Your task to perform on an android device: set default search engine in the chrome app Image 0: 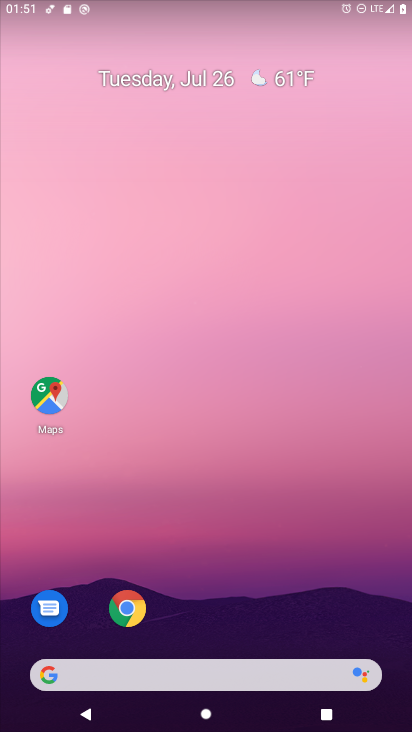
Step 0: click (124, 611)
Your task to perform on an android device: set default search engine in the chrome app Image 1: 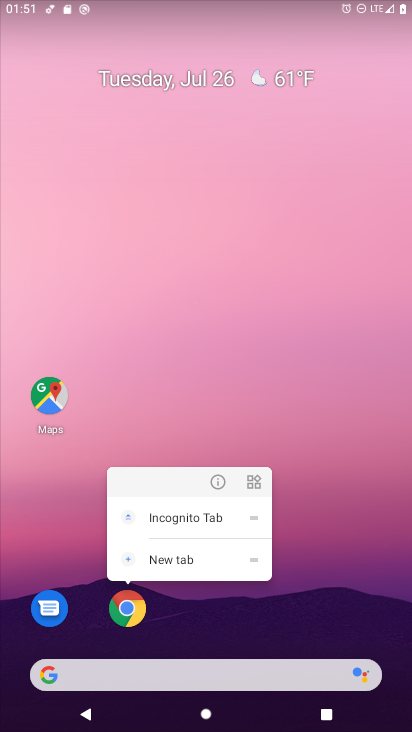
Step 1: click (124, 610)
Your task to perform on an android device: set default search engine in the chrome app Image 2: 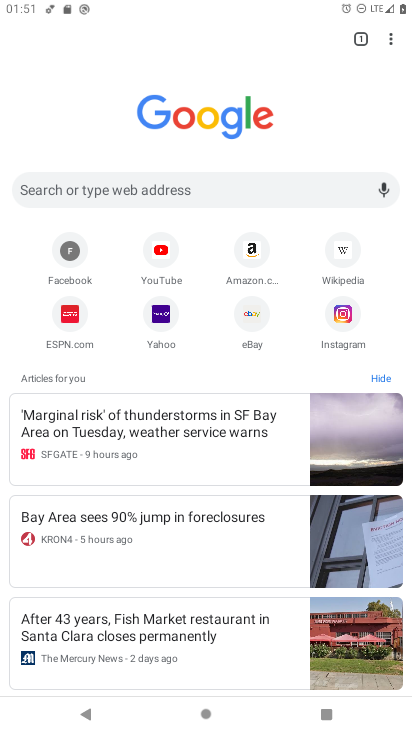
Step 2: click (388, 40)
Your task to perform on an android device: set default search engine in the chrome app Image 3: 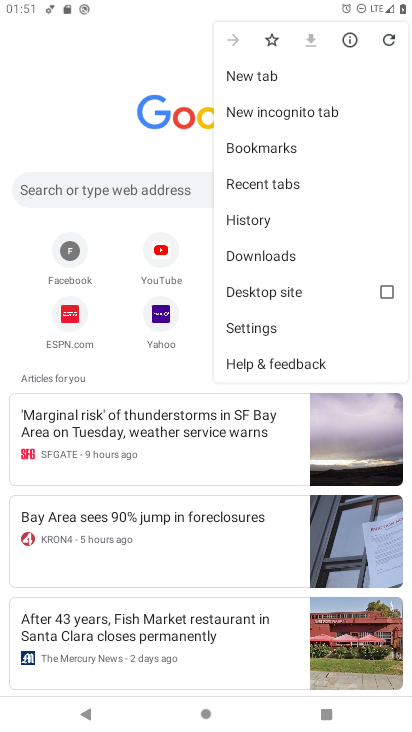
Step 3: click (238, 333)
Your task to perform on an android device: set default search engine in the chrome app Image 4: 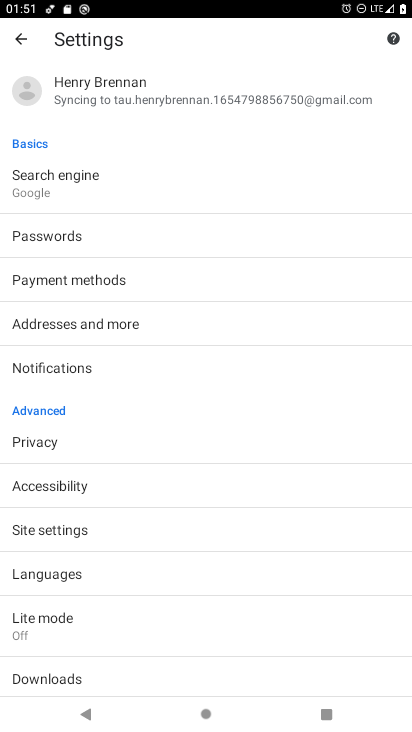
Step 4: click (111, 193)
Your task to perform on an android device: set default search engine in the chrome app Image 5: 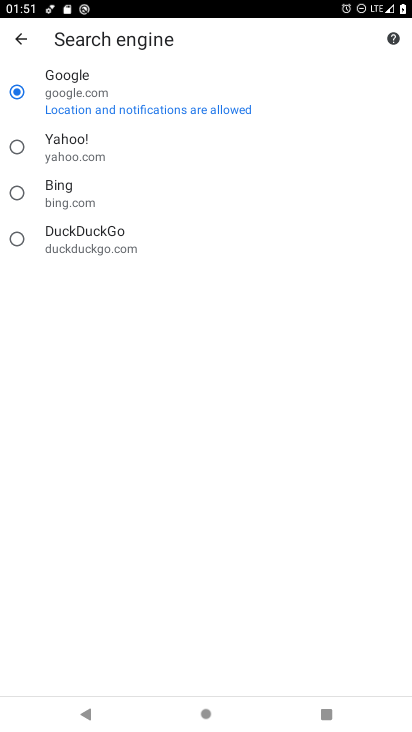
Step 5: click (20, 146)
Your task to perform on an android device: set default search engine in the chrome app Image 6: 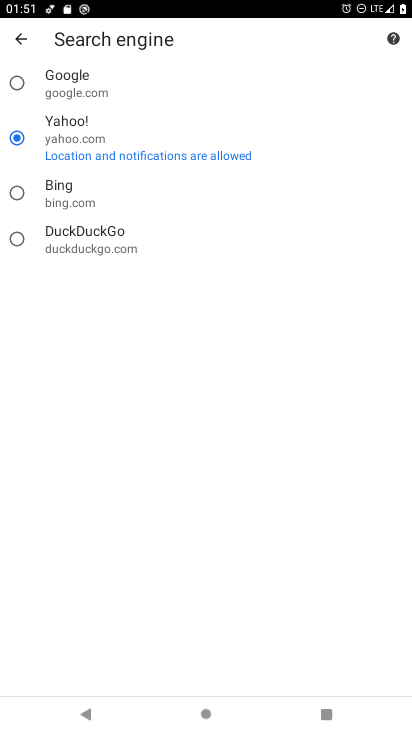
Step 6: task complete